Your task to perform on an android device: move an email to a new category in the gmail app Image 0: 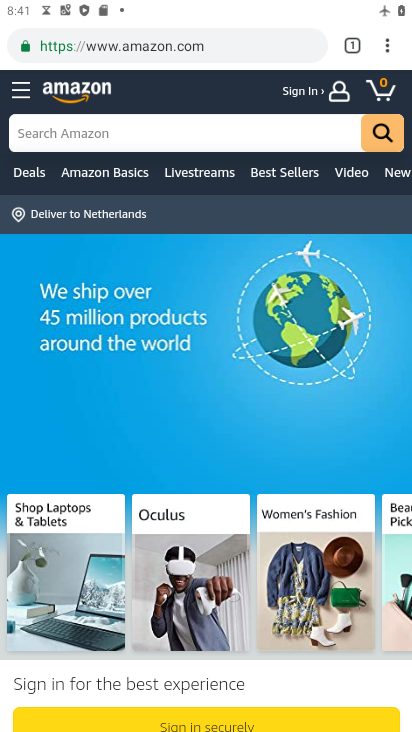
Step 0: press home button
Your task to perform on an android device: move an email to a new category in the gmail app Image 1: 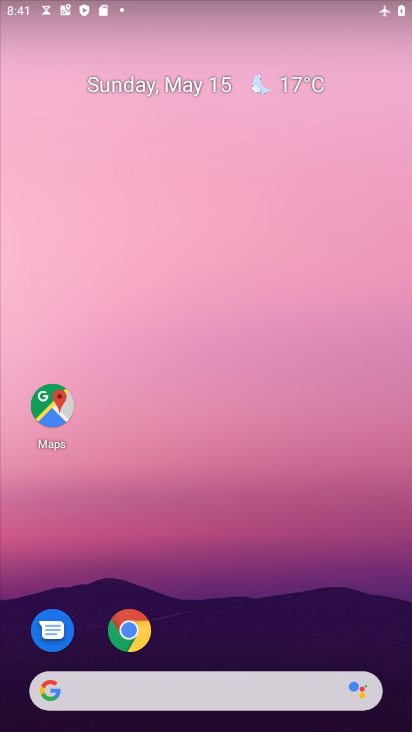
Step 1: drag from (297, 601) to (329, 44)
Your task to perform on an android device: move an email to a new category in the gmail app Image 2: 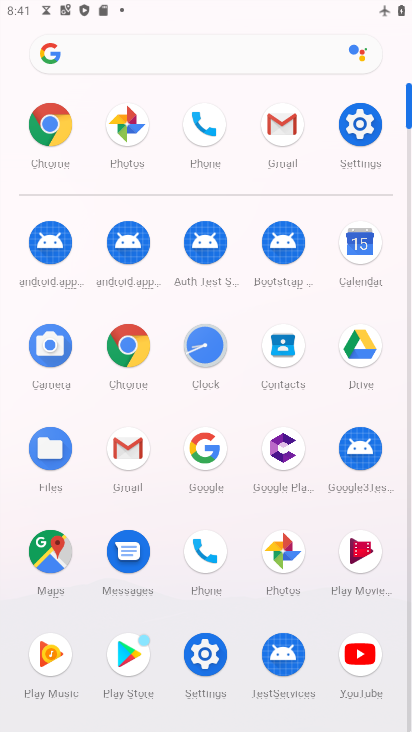
Step 2: click (286, 115)
Your task to perform on an android device: move an email to a new category in the gmail app Image 3: 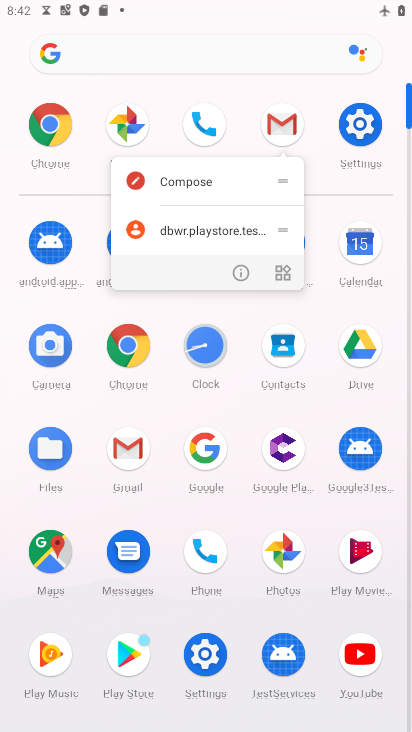
Step 3: click (272, 126)
Your task to perform on an android device: move an email to a new category in the gmail app Image 4: 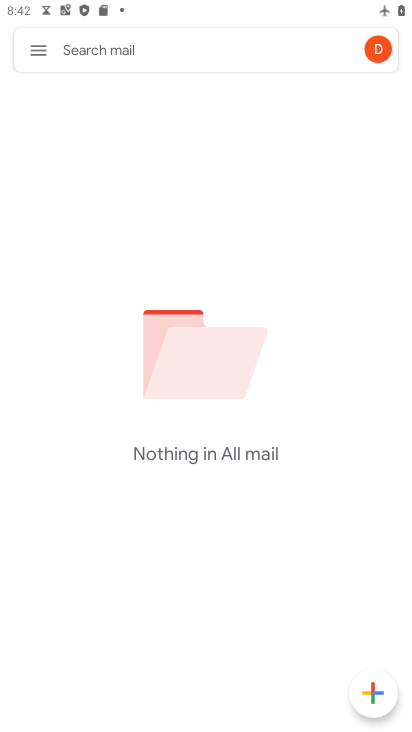
Step 4: click (49, 53)
Your task to perform on an android device: move an email to a new category in the gmail app Image 5: 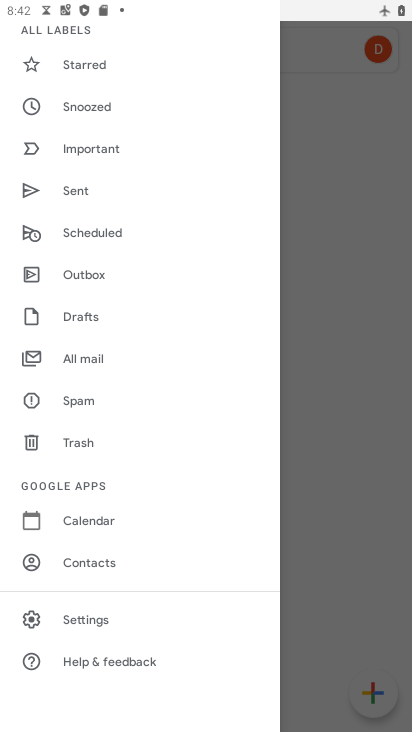
Step 5: click (57, 346)
Your task to perform on an android device: move an email to a new category in the gmail app Image 6: 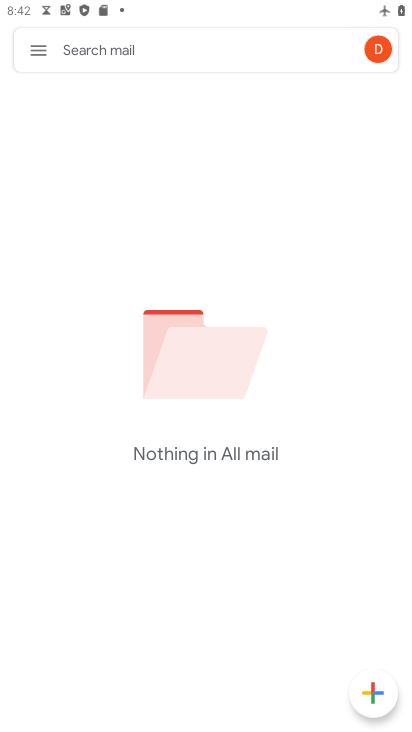
Step 6: task complete